Your task to perform on an android device: Go to ESPN.com Image 0: 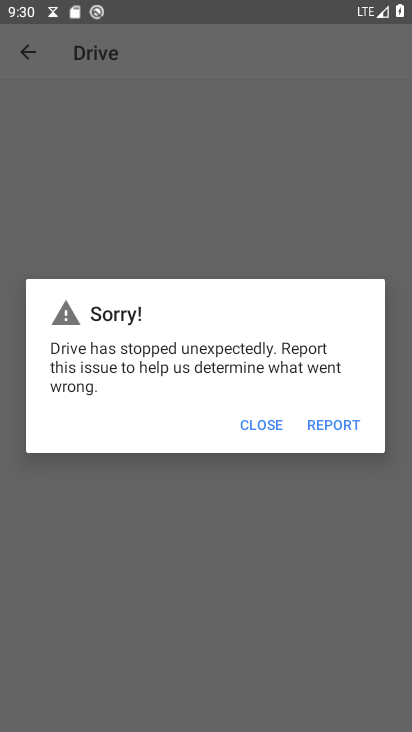
Step 0: press home button
Your task to perform on an android device: Go to ESPN.com Image 1: 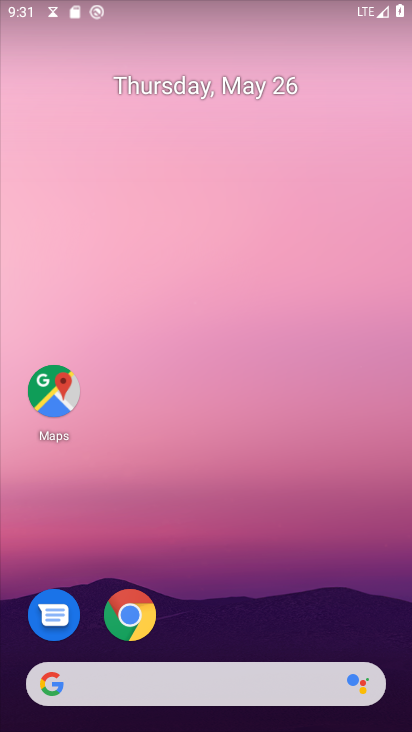
Step 1: click (126, 603)
Your task to perform on an android device: Go to ESPN.com Image 2: 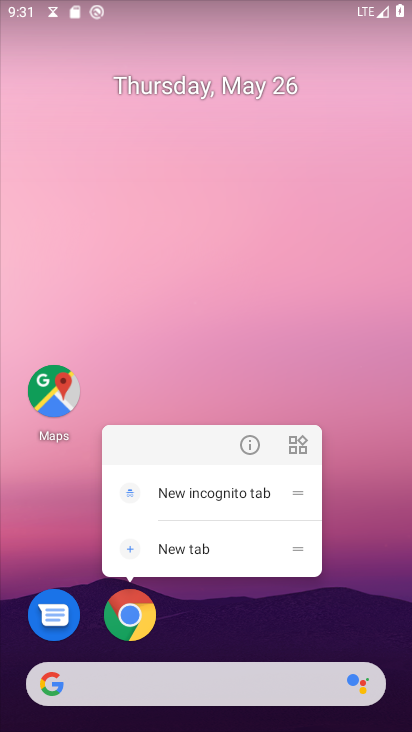
Step 2: click (129, 612)
Your task to perform on an android device: Go to ESPN.com Image 3: 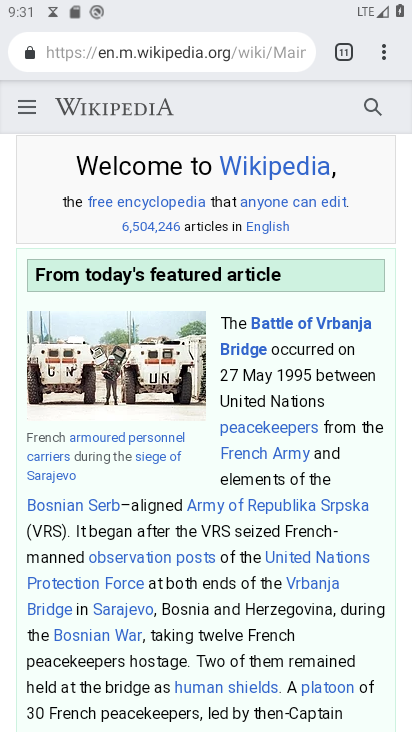
Step 3: click (375, 48)
Your task to perform on an android device: Go to ESPN.com Image 4: 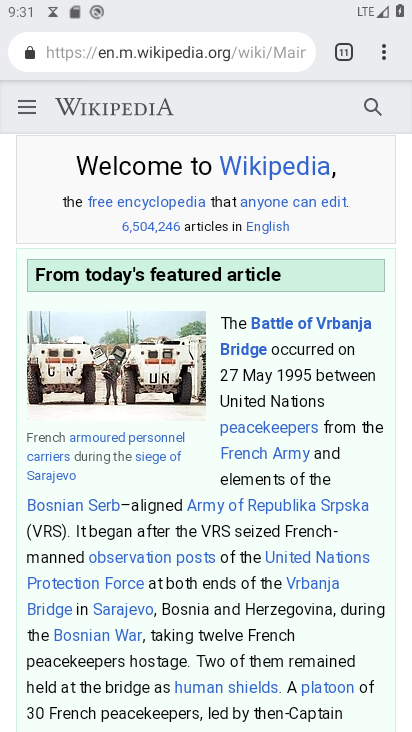
Step 4: click (381, 50)
Your task to perform on an android device: Go to ESPN.com Image 5: 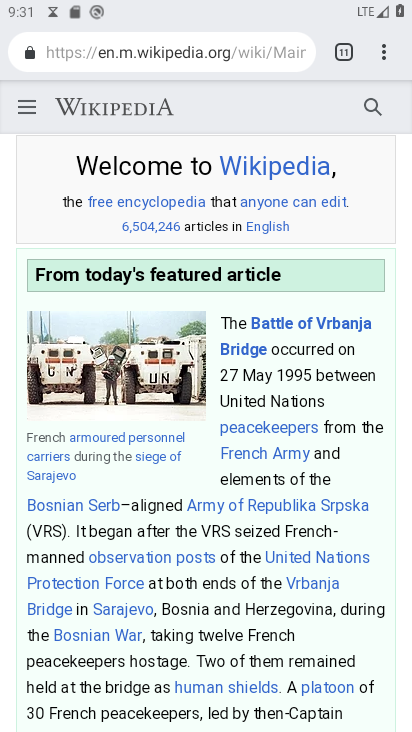
Step 5: click (377, 55)
Your task to perform on an android device: Go to ESPN.com Image 6: 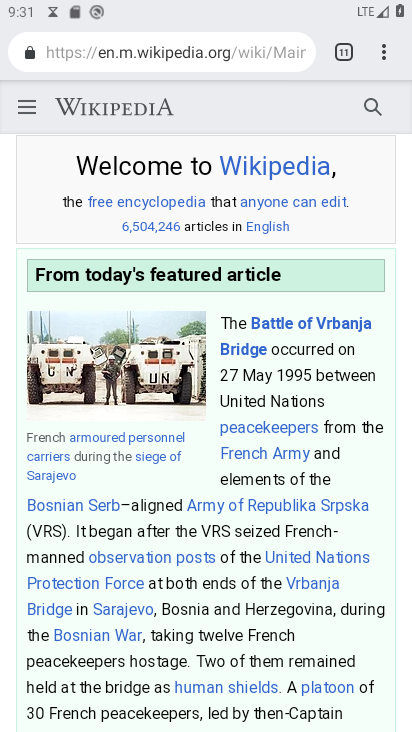
Step 6: click (375, 37)
Your task to perform on an android device: Go to ESPN.com Image 7: 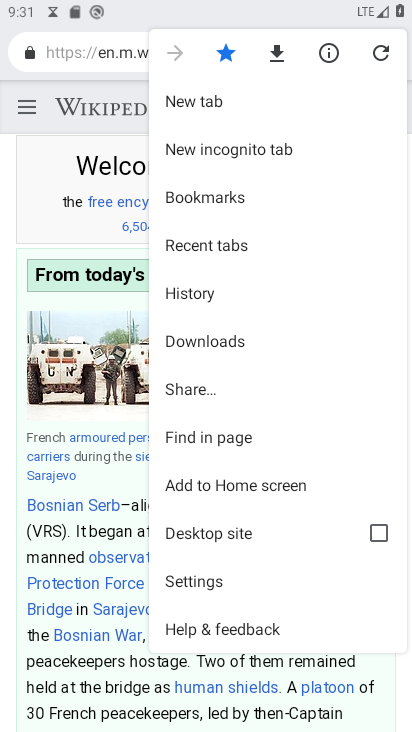
Step 7: click (218, 576)
Your task to perform on an android device: Go to ESPN.com Image 8: 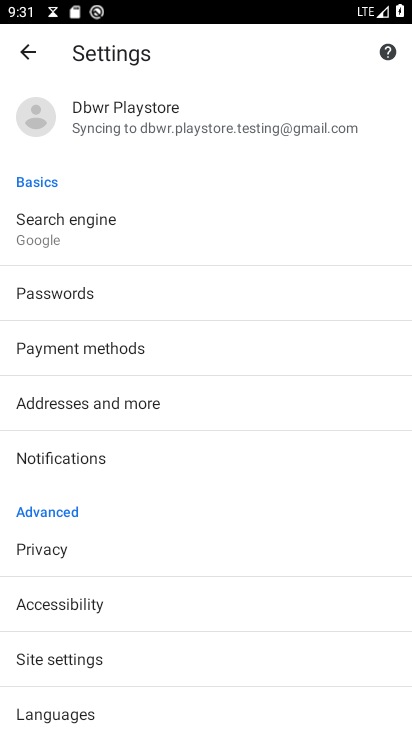
Step 8: click (21, 49)
Your task to perform on an android device: Go to ESPN.com Image 9: 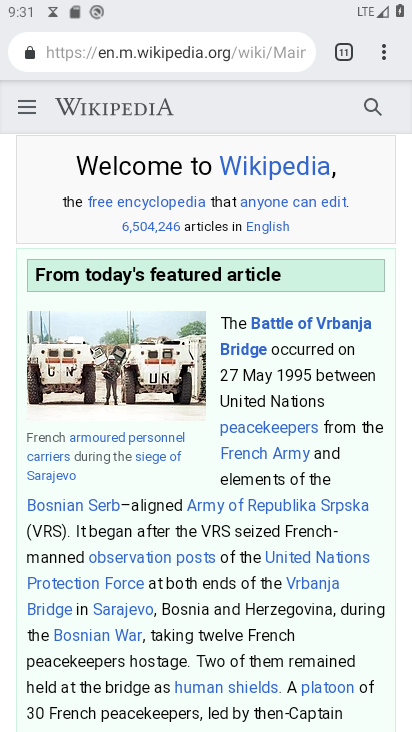
Step 9: click (372, 49)
Your task to perform on an android device: Go to ESPN.com Image 10: 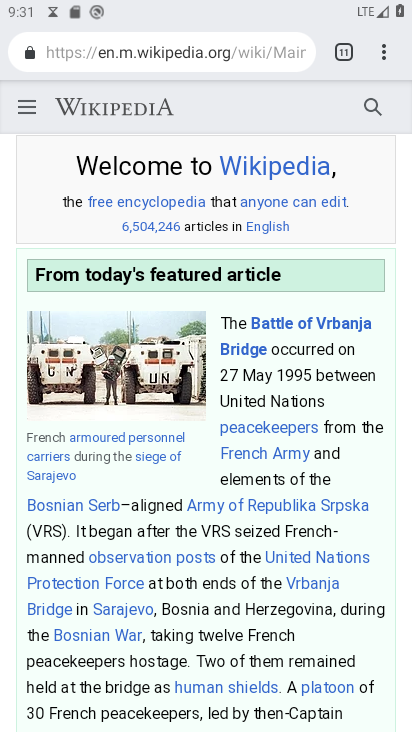
Step 10: click (380, 48)
Your task to perform on an android device: Go to ESPN.com Image 11: 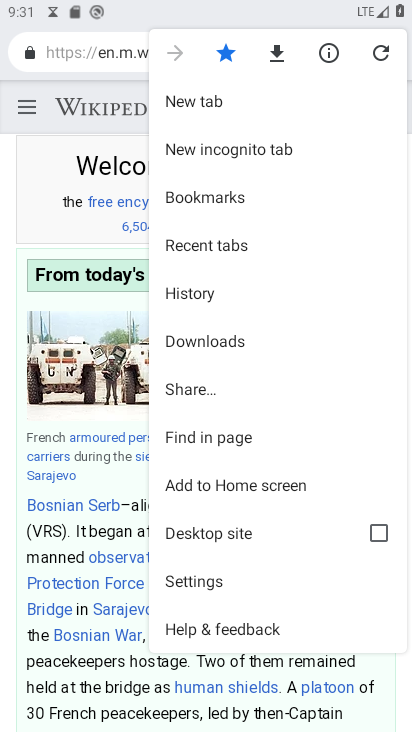
Step 11: click (215, 107)
Your task to perform on an android device: Go to ESPN.com Image 12: 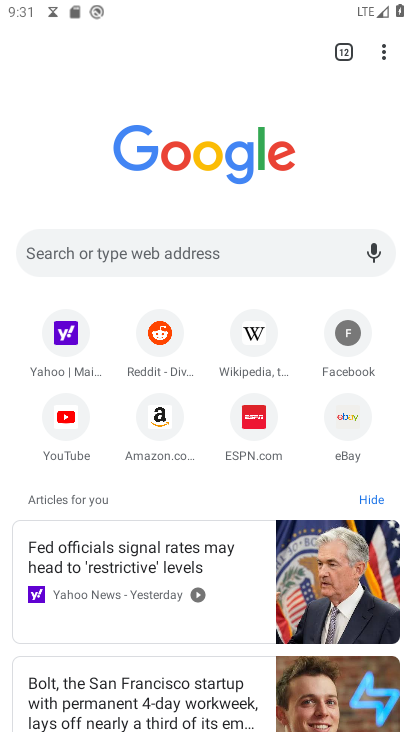
Step 12: click (248, 411)
Your task to perform on an android device: Go to ESPN.com Image 13: 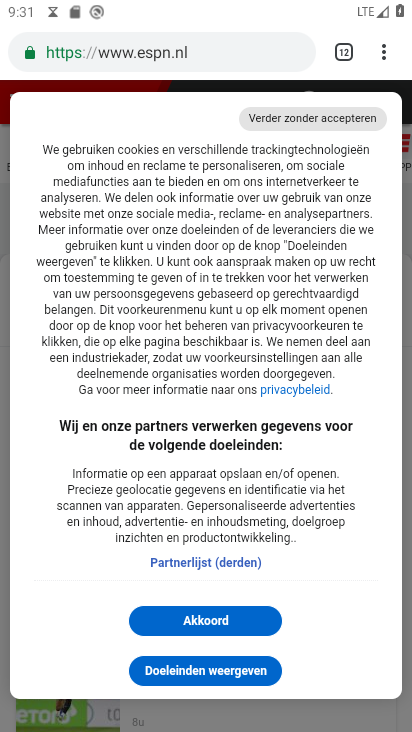
Step 13: task complete